Your task to perform on an android device: Open Wikipedia Image 0: 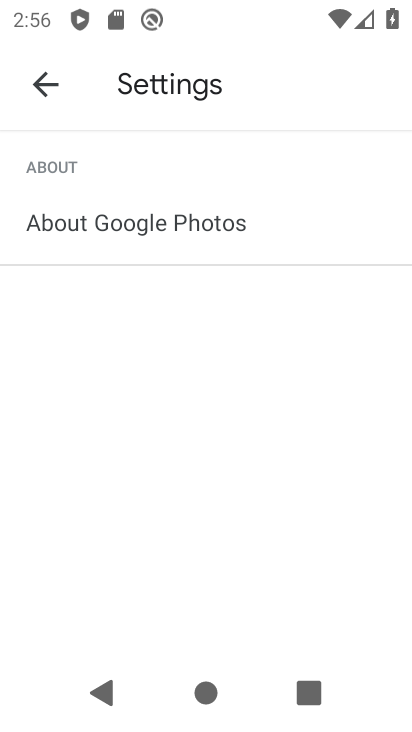
Step 0: press home button
Your task to perform on an android device: Open Wikipedia Image 1: 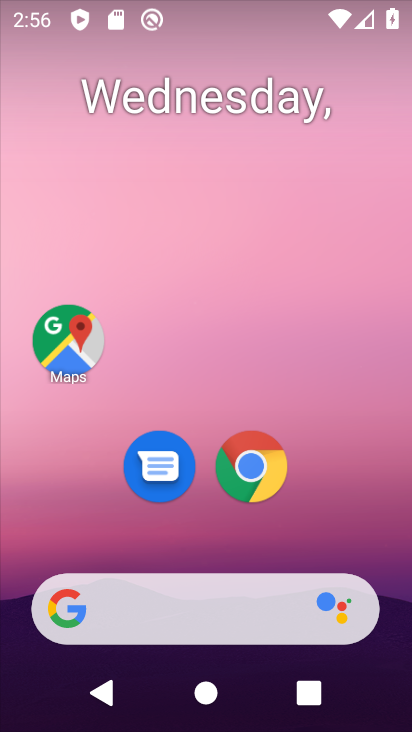
Step 1: drag from (254, 550) to (200, 14)
Your task to perform on an android device: Open Wikipedia Image 2: 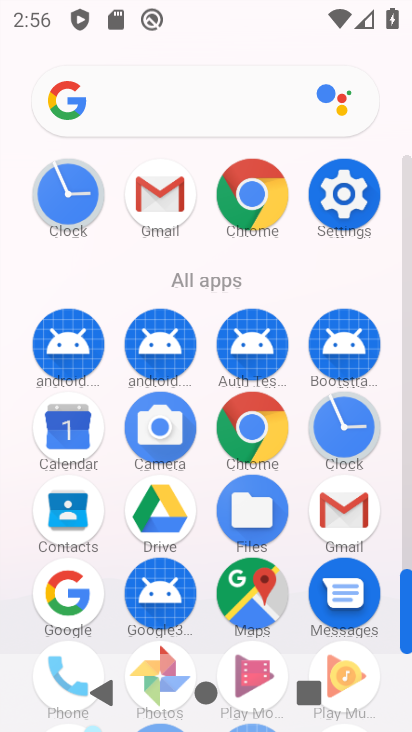
Step 2: click (243, 202)
Your task to perform on an android device: Open Wikipedia Image 3: 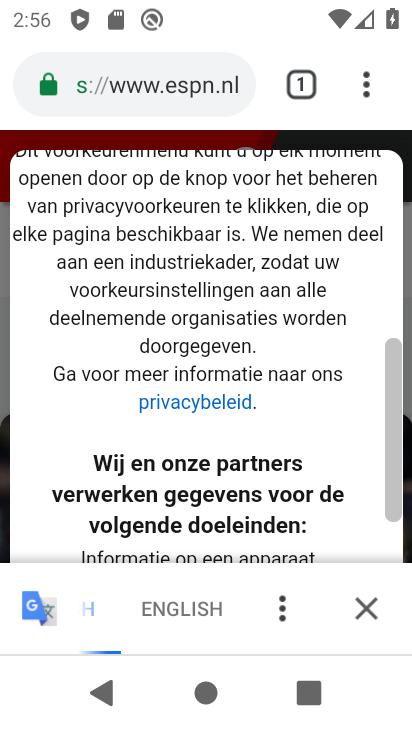
Step 3: click (299, 76)
Your task to perform on an android device: Open Wikipedia Image 4: 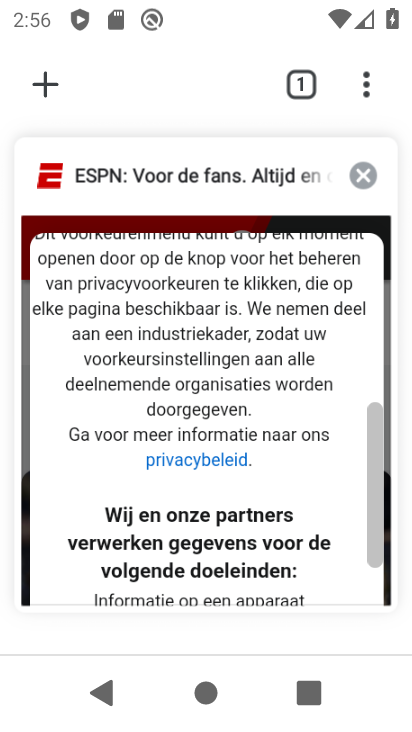
Step 4: click (45, 73)
Your task to perform on an android device: Open Wikipedia Image 5: 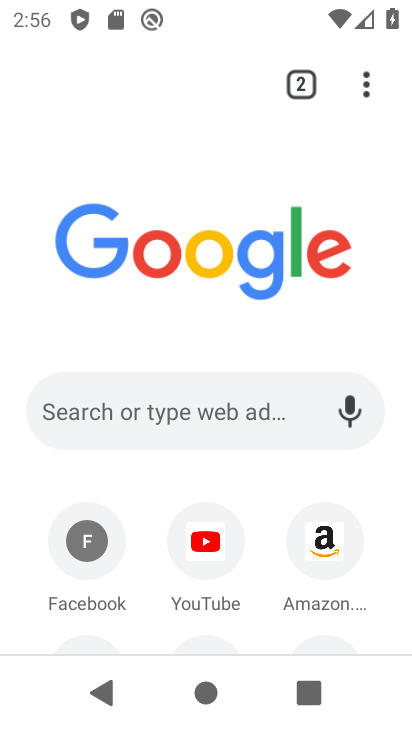
Step 5: drag from (144, 608) to (101, 176)
Your task to perform on an android device: Open Wikipedia Image 6: 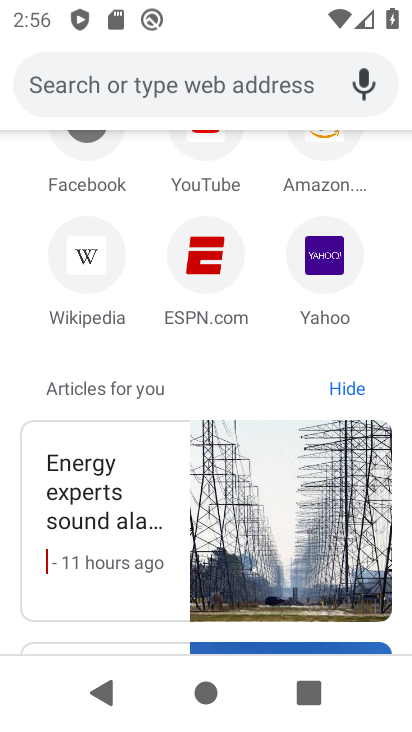
Step 6: click (83, 293)
Your task to perform on an android device: Open Wikipedia Image 7: 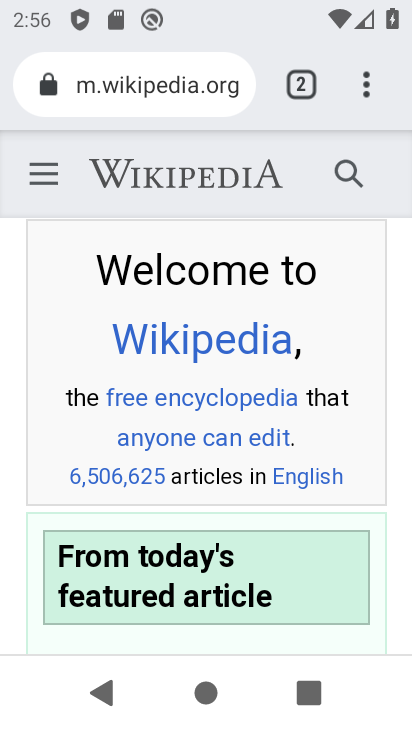
Step 7: task complete